Your task to perform on an android device: check the backup settings in the google photos Image 0: 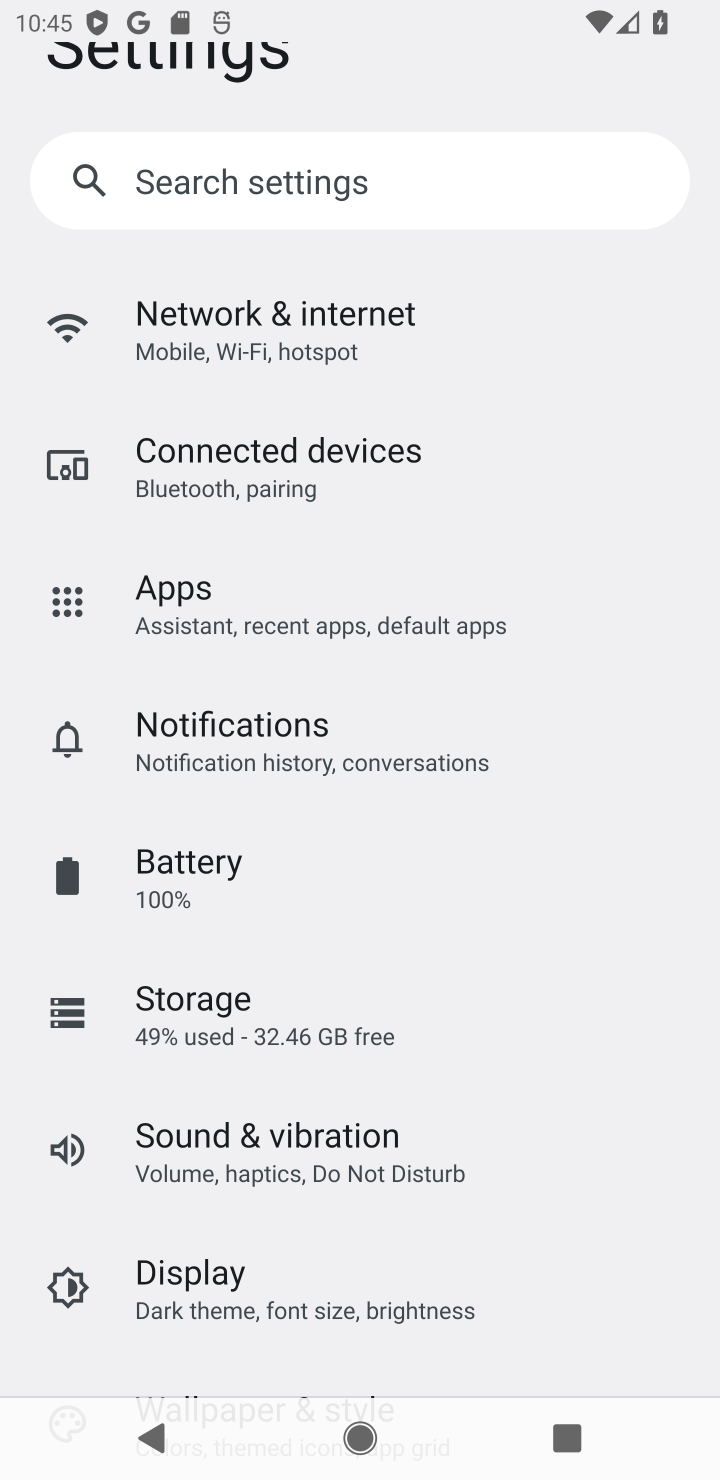
Step 0: press home button
Your task to perform on an android device: check the backup settings in the google photos Image 1: 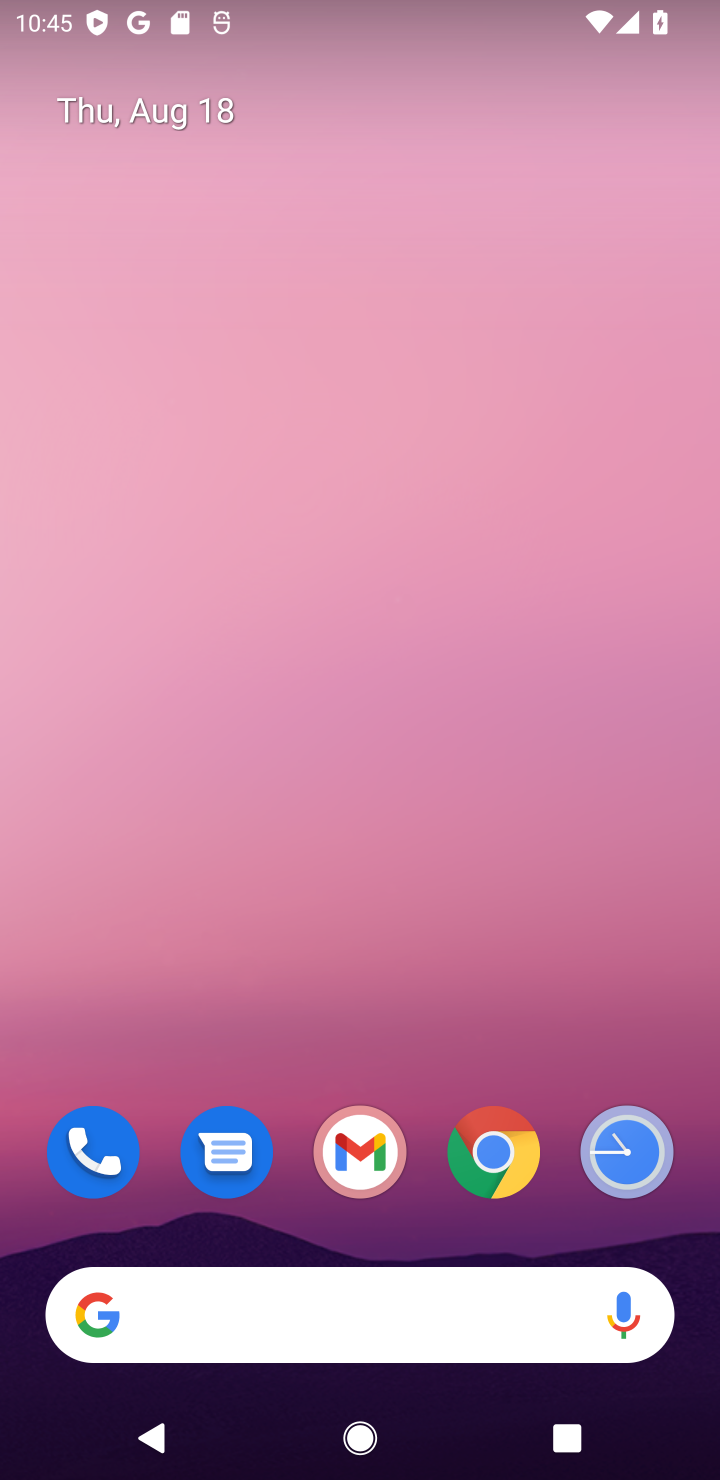
Step 1: drag from (416, 947) to (515, 0)
Your task to perform on an android device: check the backup settings in the google photos Image 2: 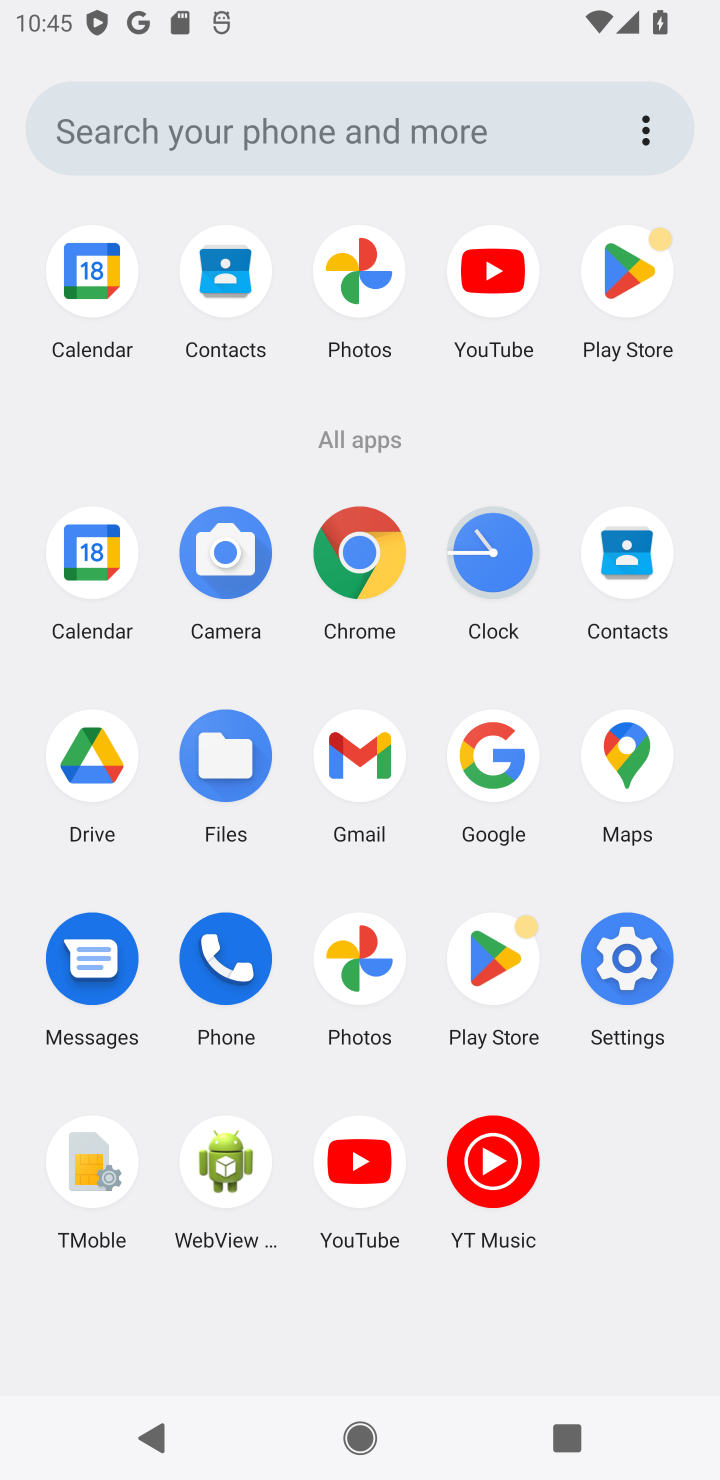
Step 2: click (358, 941)
Your task to perform on an android device: check the backup settings in the google photos Image 3: 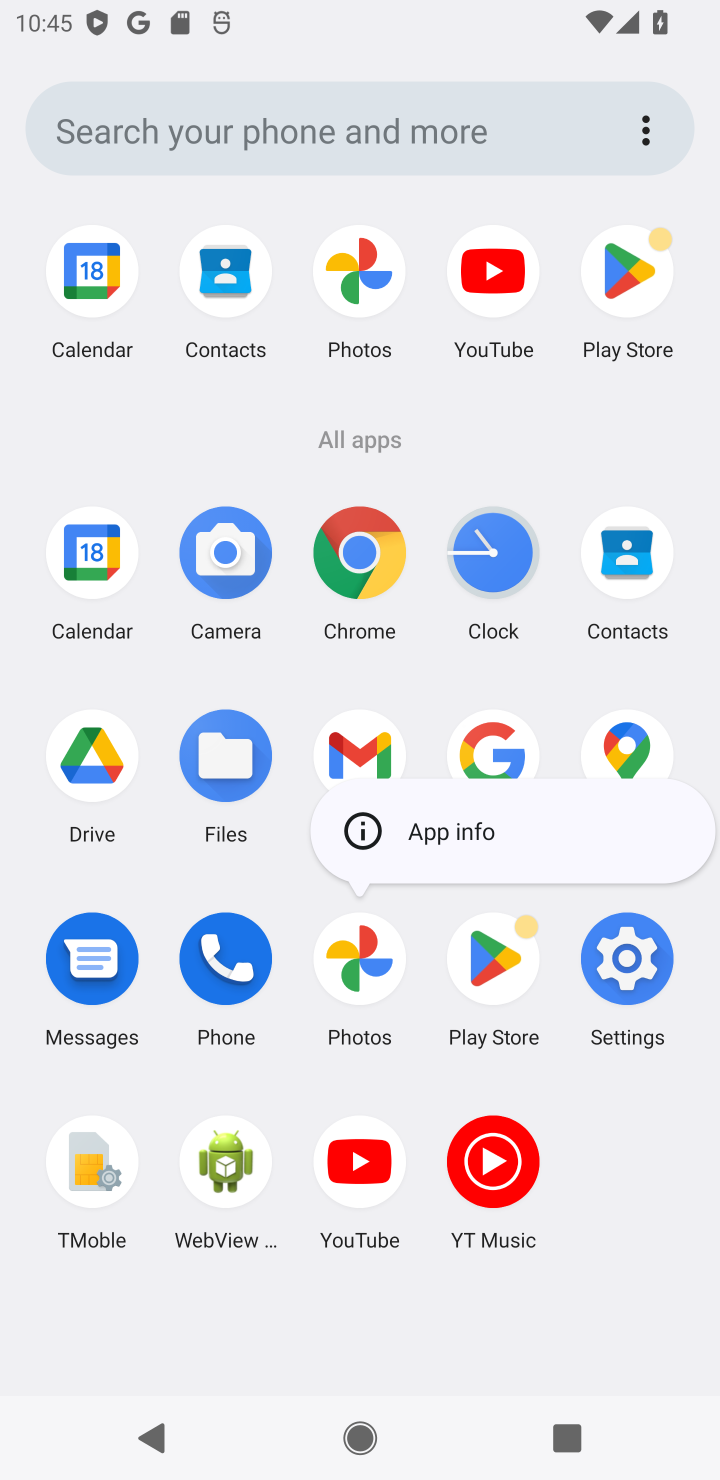
Step 3: click (360, 954)
Your task to perform on an android device: check the backup settings in the google photos Image 4: 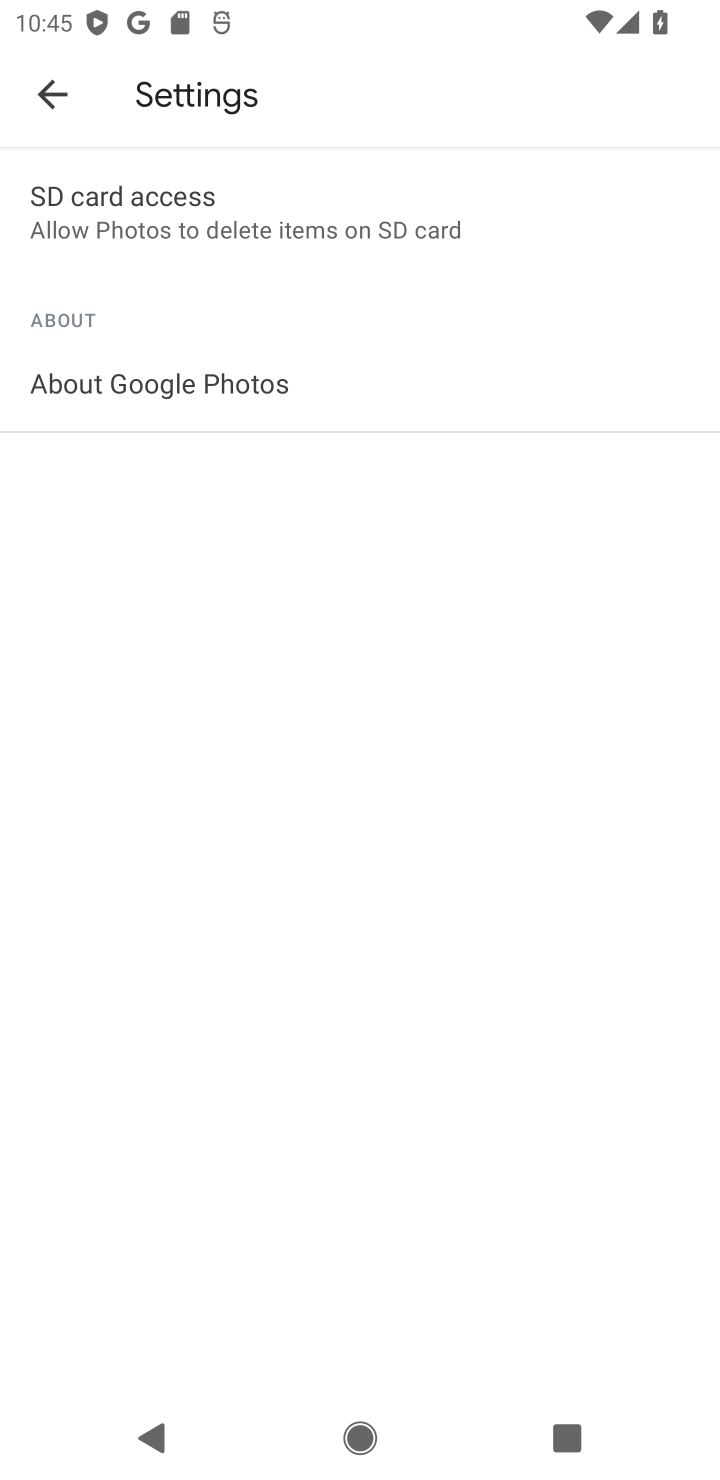
Step 4: click (63, 93)
Your task to perform on an android device: check the backup settings in the google photos Image 5: 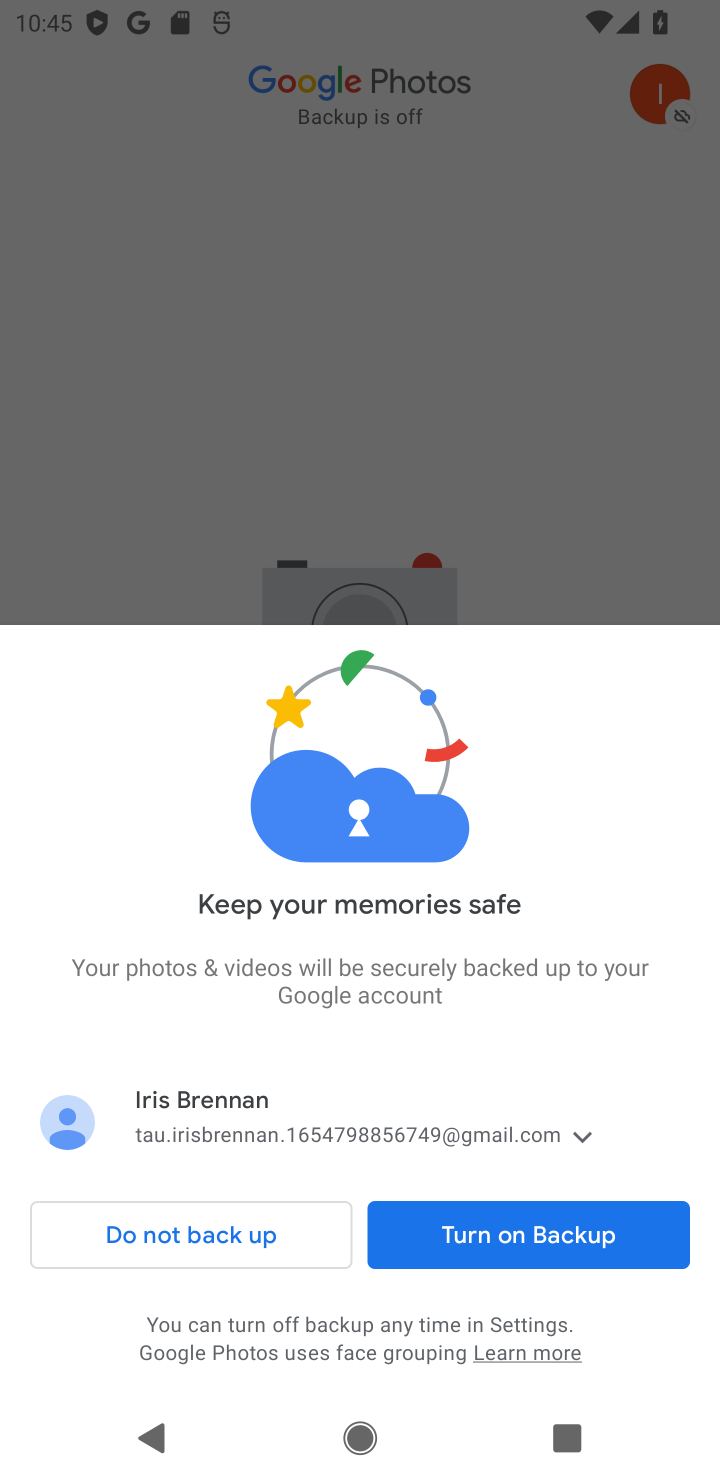
Step 5: click (554, 1235)
Your task to perform on an android device: check the backup settings in the google photos Image 6: 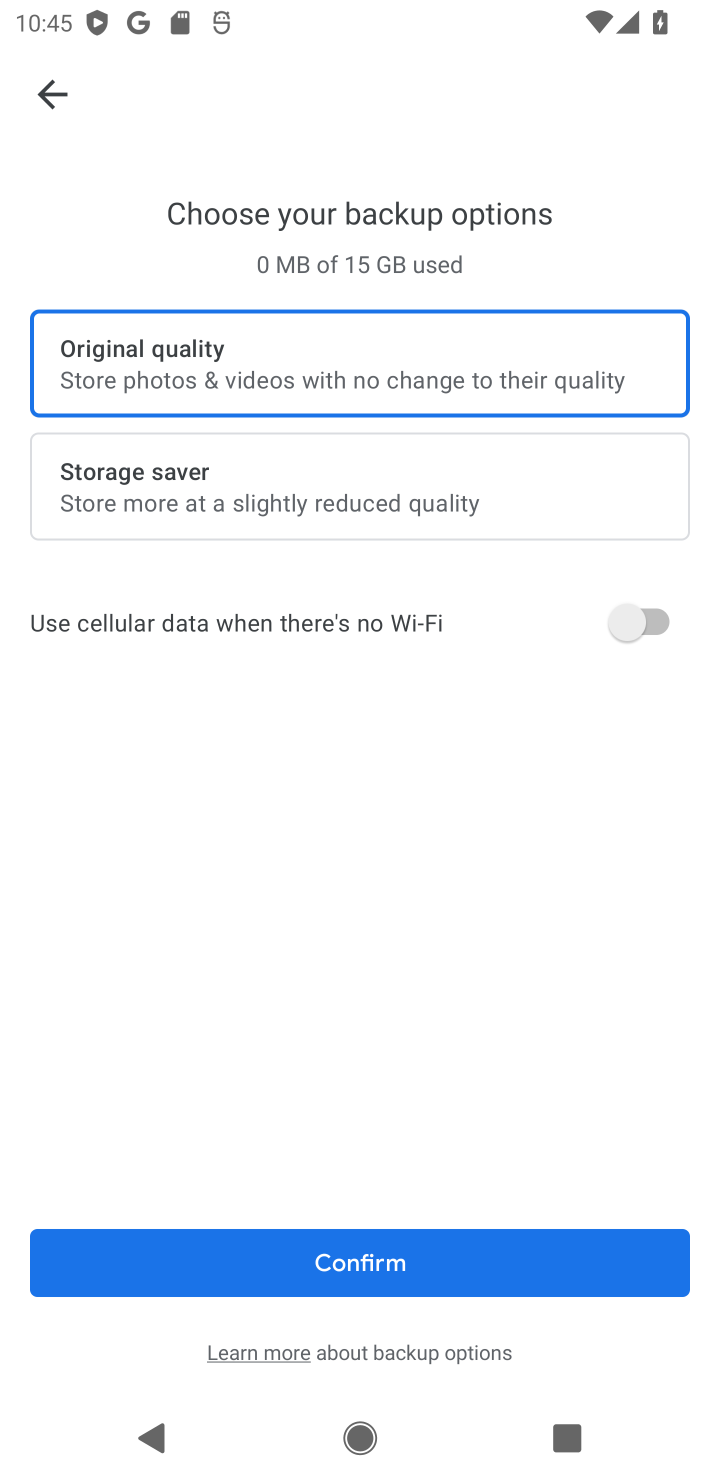
Step 6: click (554, 1252)
Your task to perform on an android device: check the backup settings in the google photos Image 7: 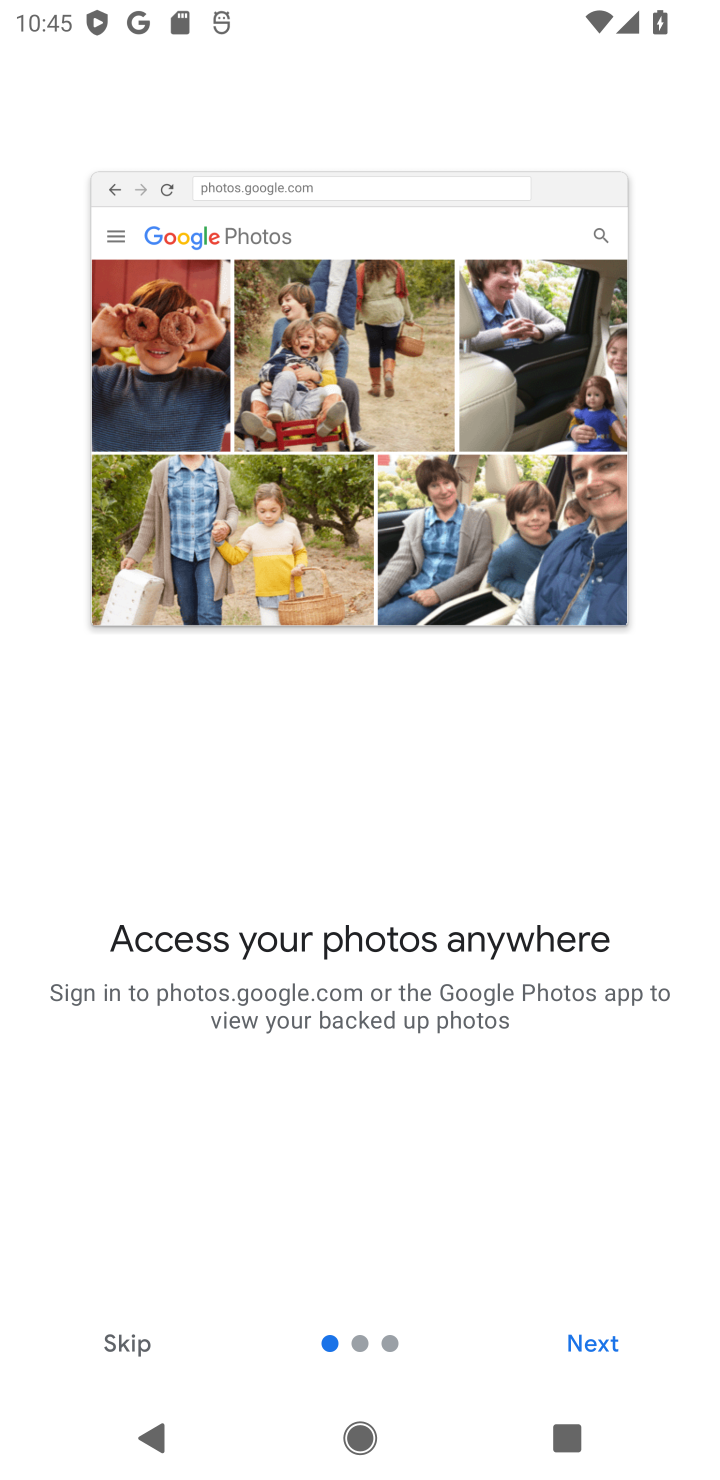
Step 7: click (601, 1337)
Your task to perform on an android device: check the backup settings in the google photos Image 8: 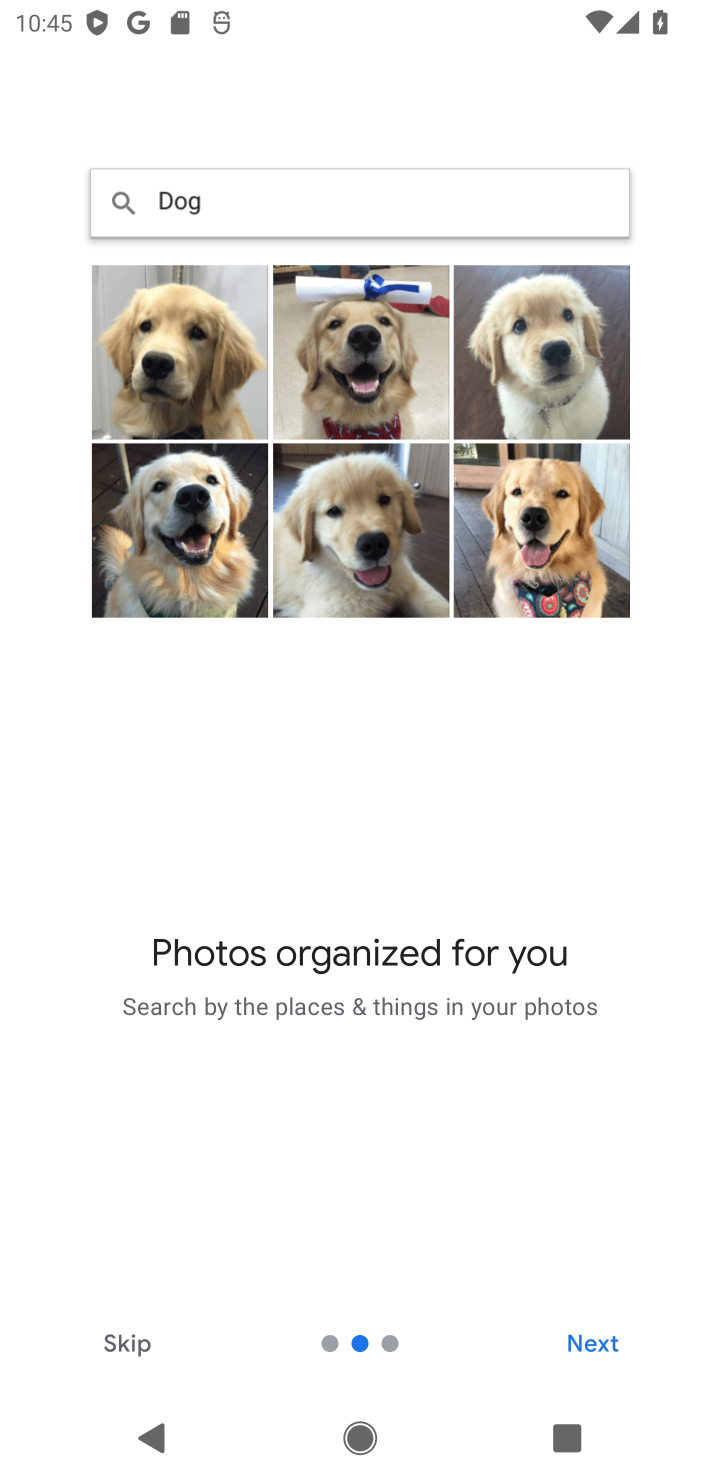
Step 8: click (601, 1337)
Your task to perform on an android device: check the backup settings in the google photos Image 9: 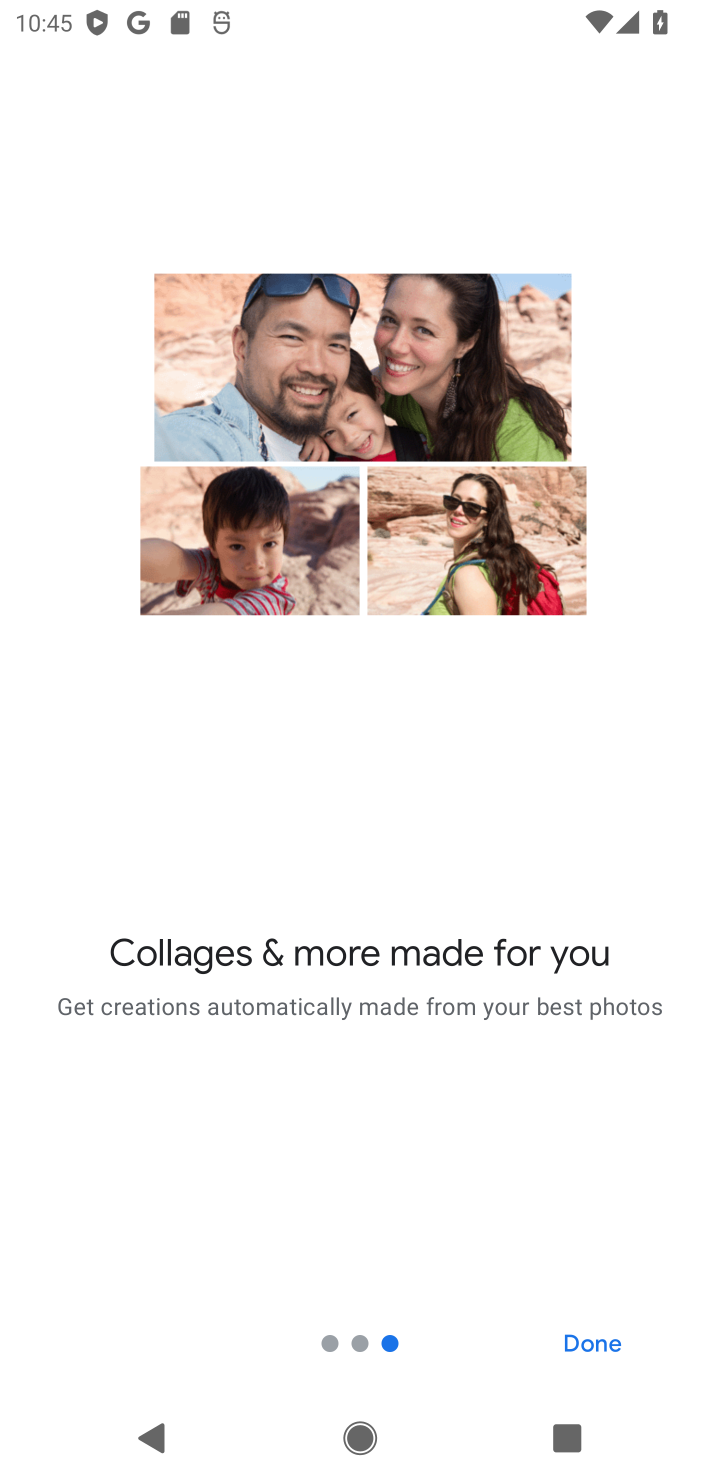
Step 9: click (601, 1335)
Your task to perform on an android device: check the backup settings in the google photos Image 10: 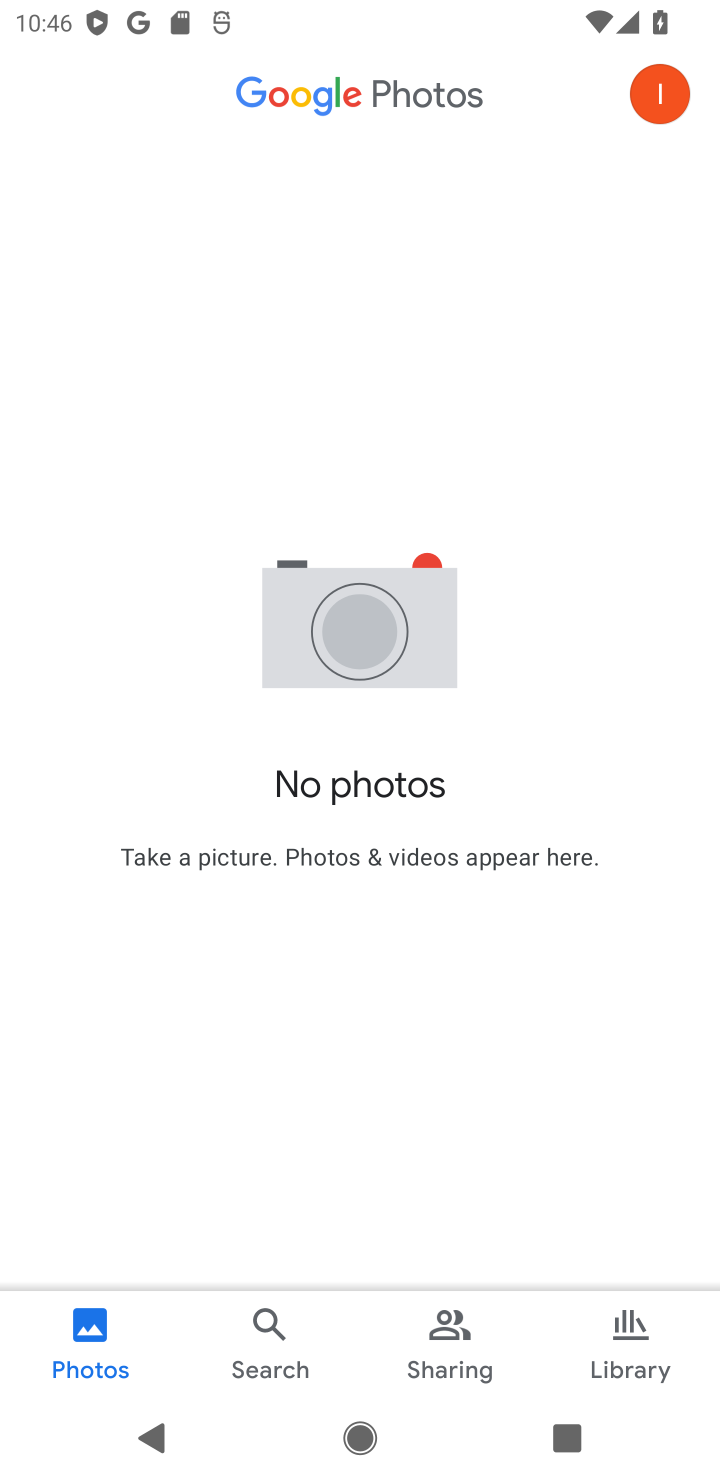
Step 10: click (663, 101)
Your task to perform on an android device: check the backup settings in the google photos Image 11: 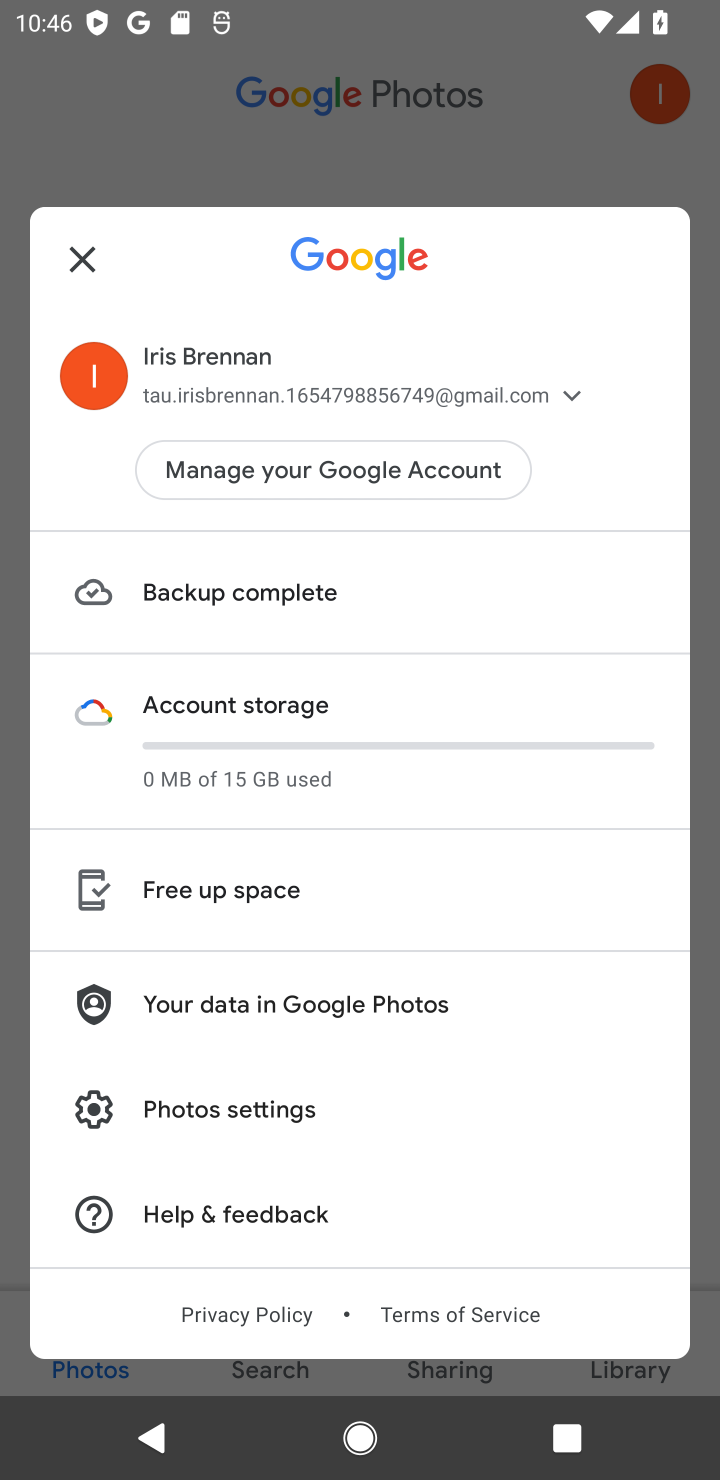
Step 11: click (287, 1105)
Your task to perform on an android device: check the backup settings in the google photos Image 12: 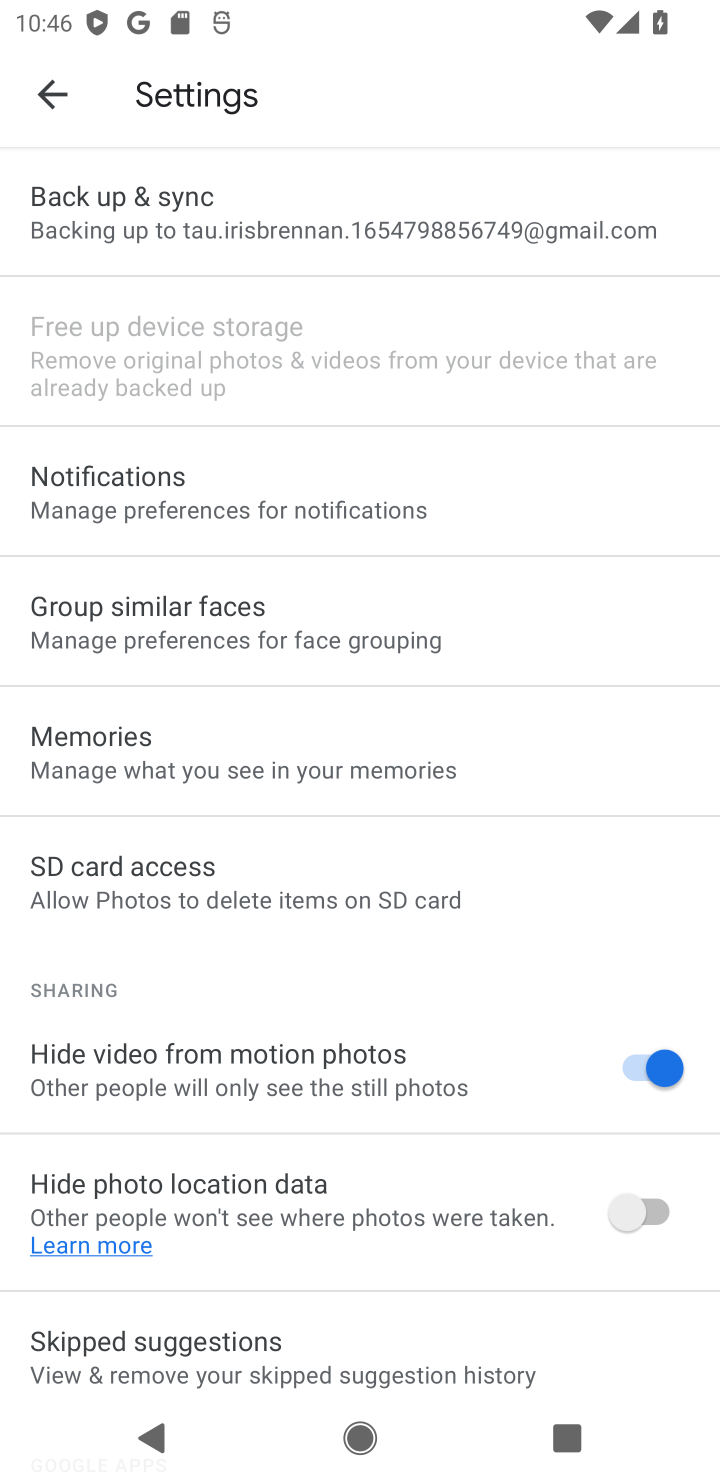
Step 12: click (412, 221)
Your task to perform on an android device: check the backup settings in the google photos Image 13: 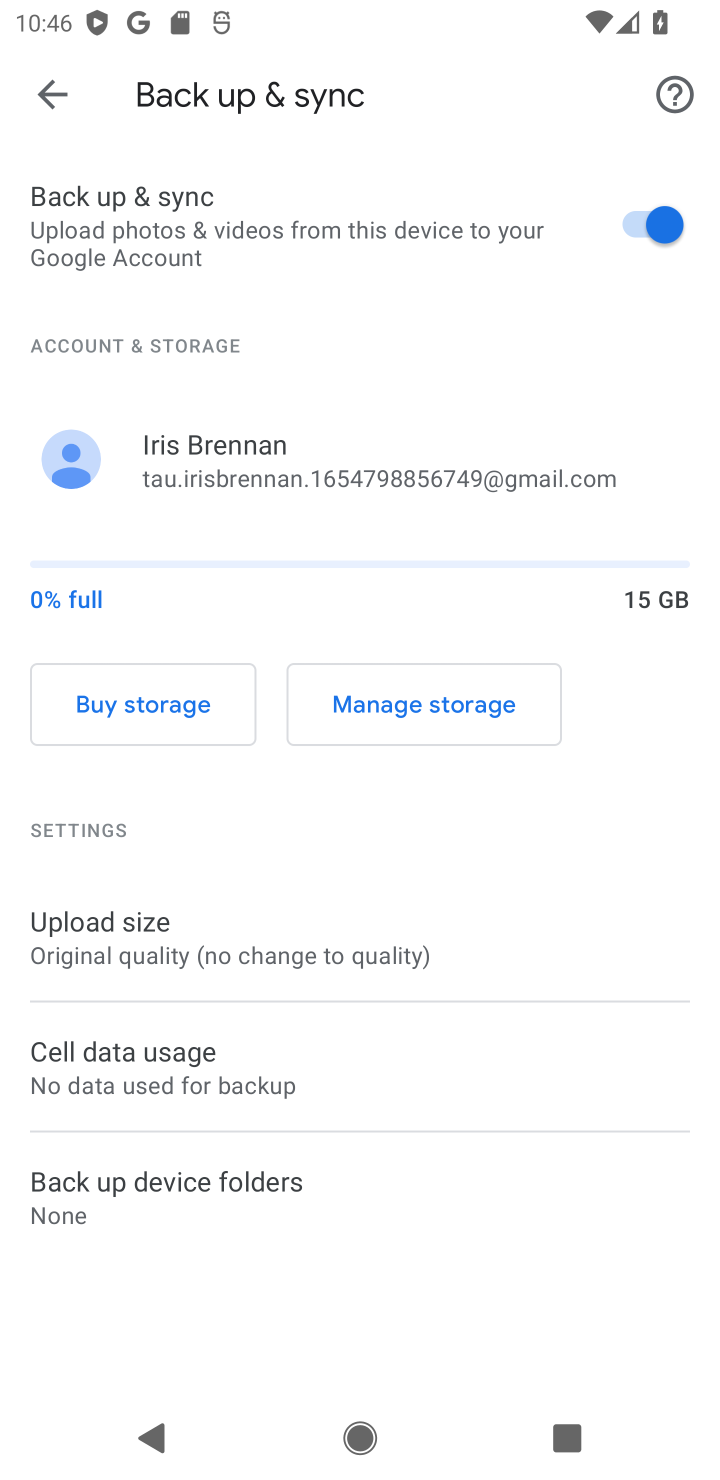
Step 13: task complete